Your task to perform on an android device: Search for good Japanese restaurants Image 0: 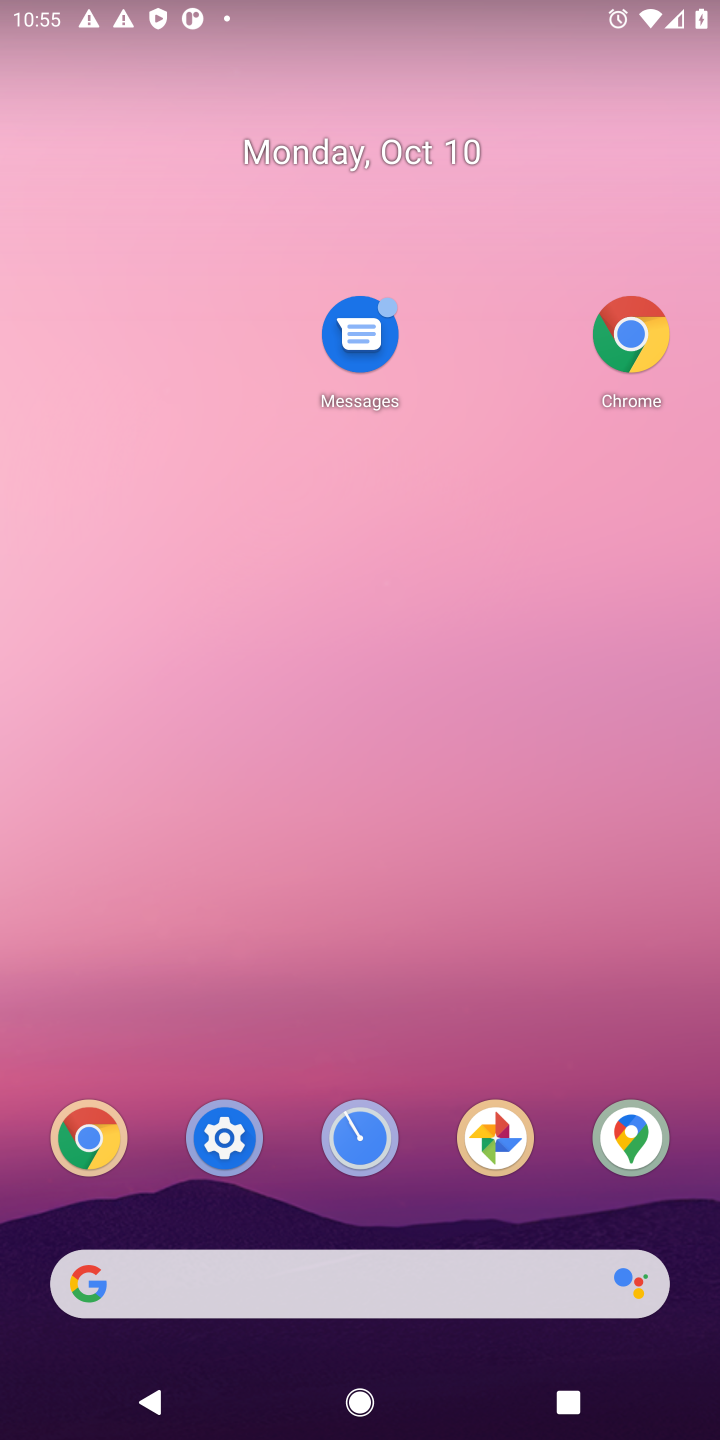
Step 0: drag from (436, 1362) to (491, 402)
Your task to perform on an android device: Search for good Japanese restaurants Image 1: 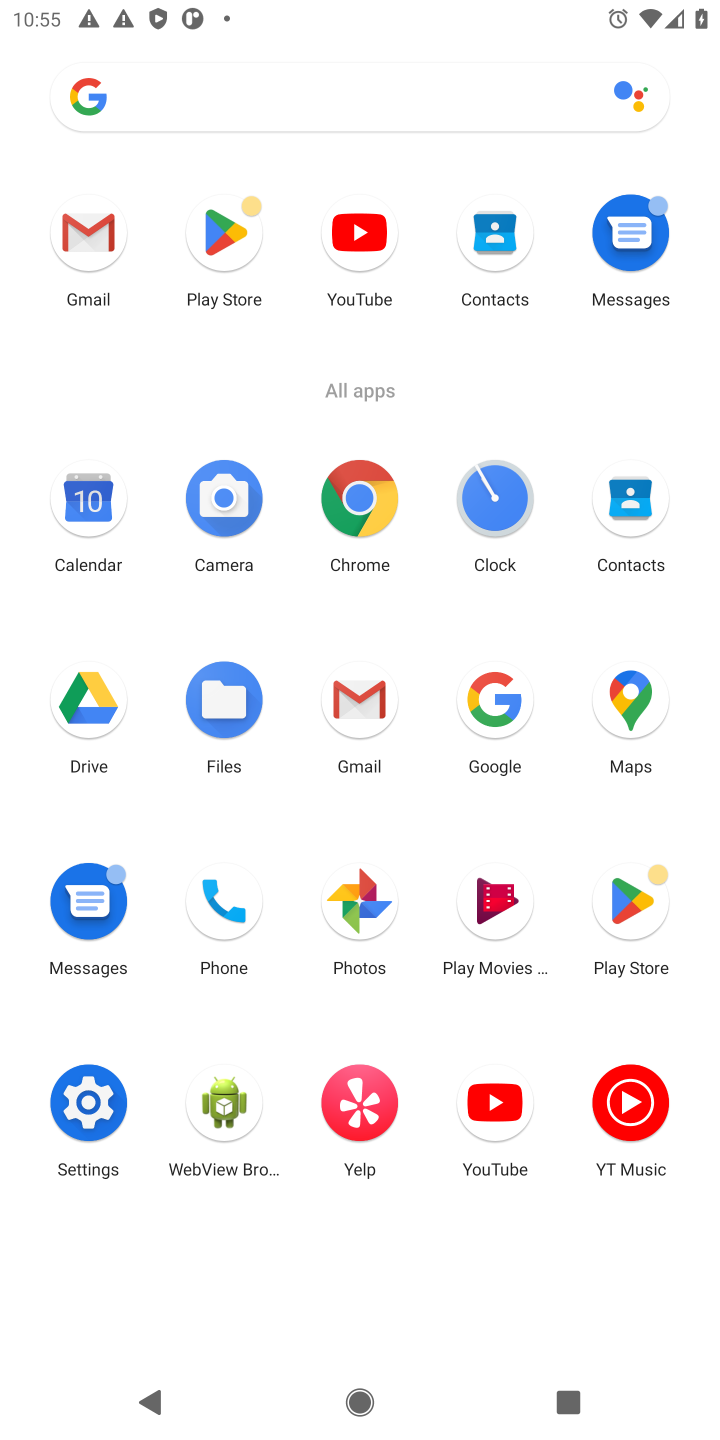
Step 1: click (367, 508)
Your task to perform on an android device: Search for good Japanese restaurants Image 2: 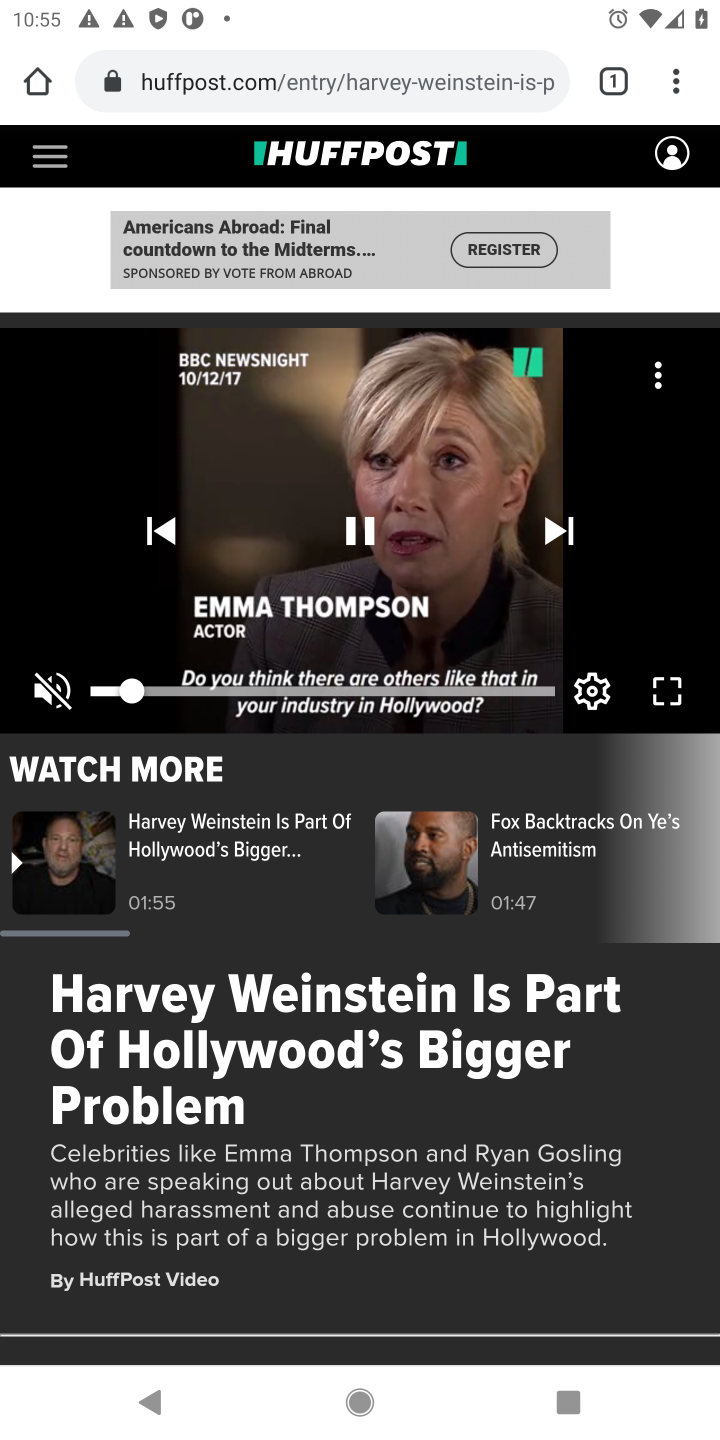
Step 2: click (316, 84)
Your task to perform on an android device: Search for good Japanese restaurants Image 3: 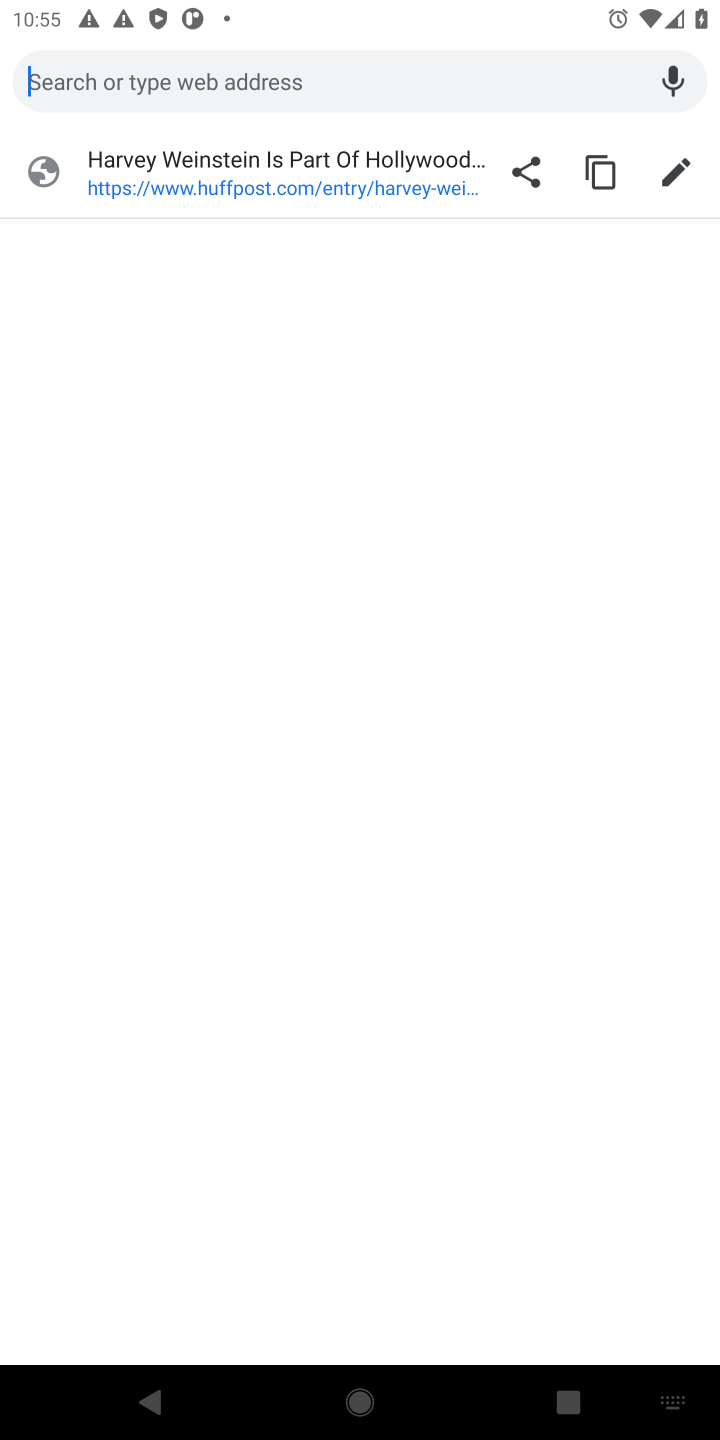
Step 3: type "good Japanese restaurants"
Your task to perform on an android device: Search for good Japanese restaurants Image 4: 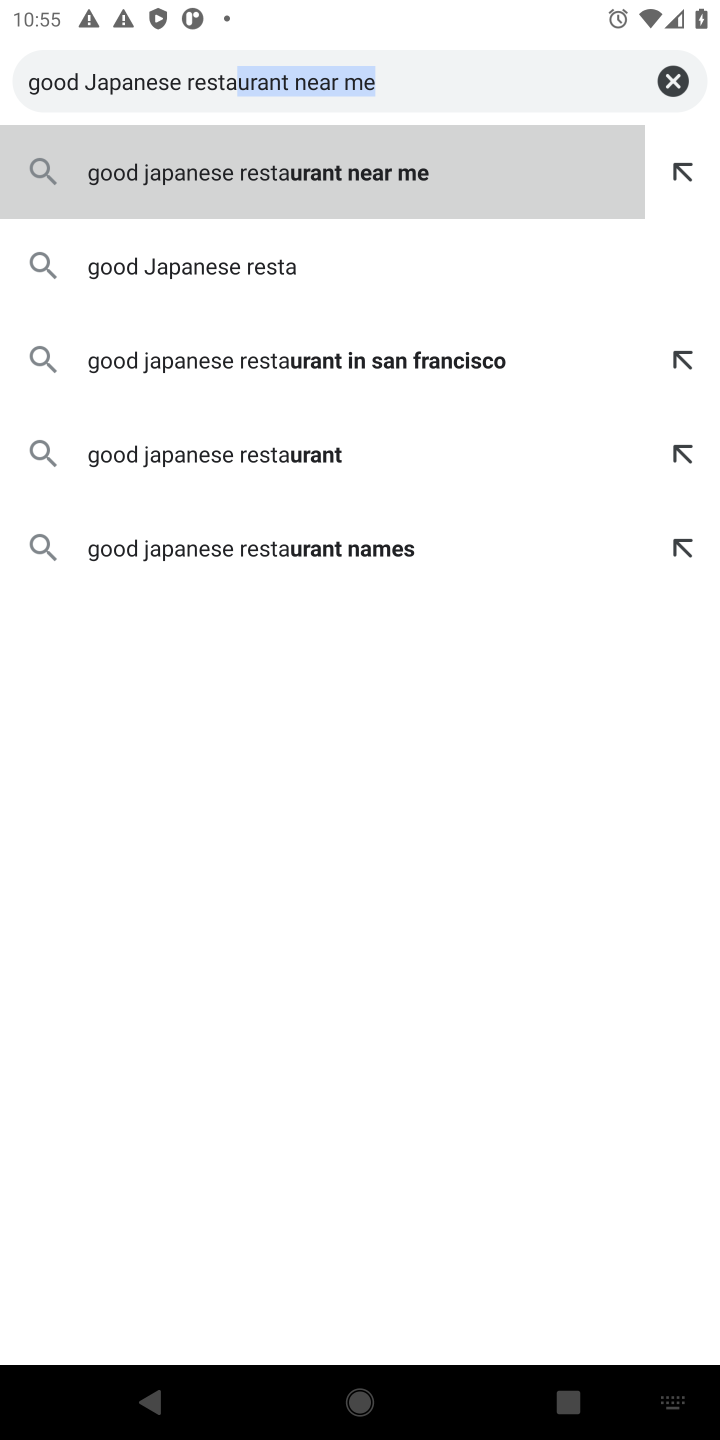
Step 4: press enter
Your task to perform on an android device: Search for good Japanese restaurants Image 5: 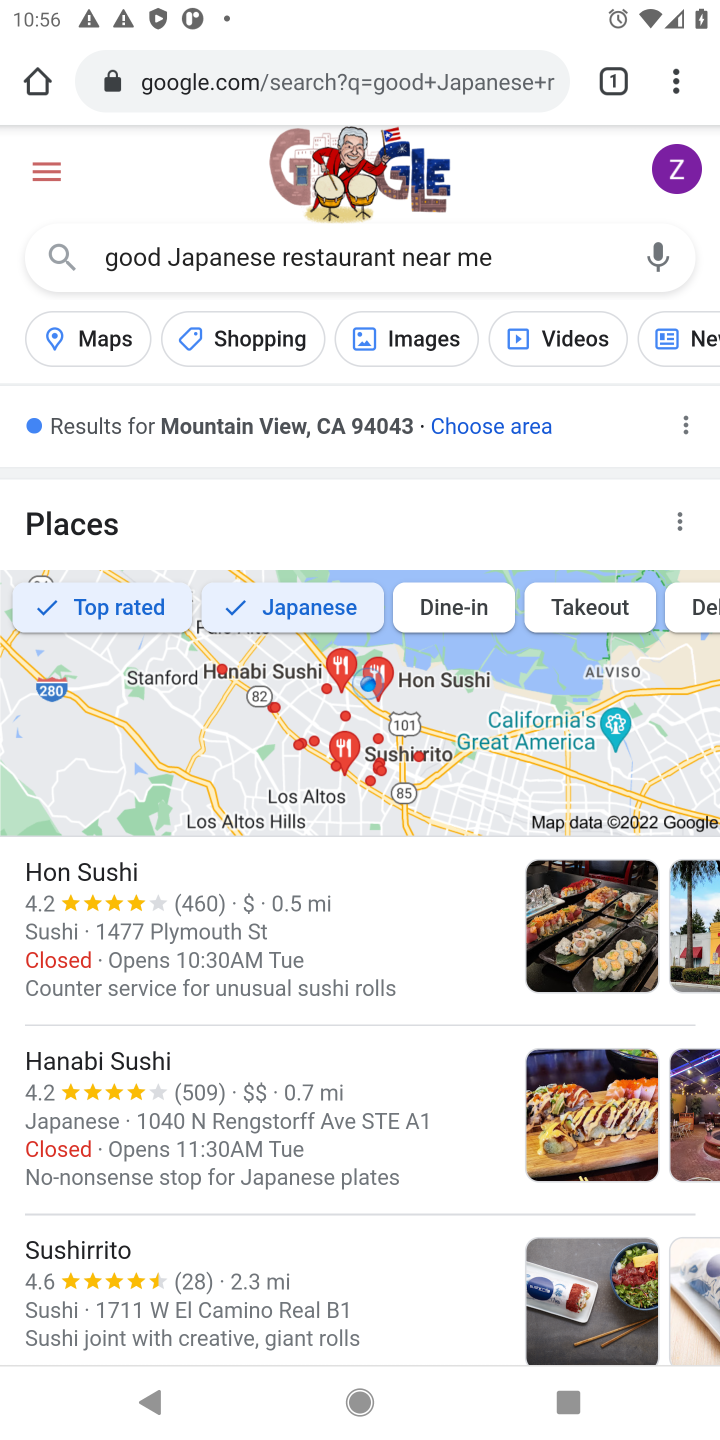
Step 5: task complete